Your task to perform on an android device: Is it going to rain today? Image 0: 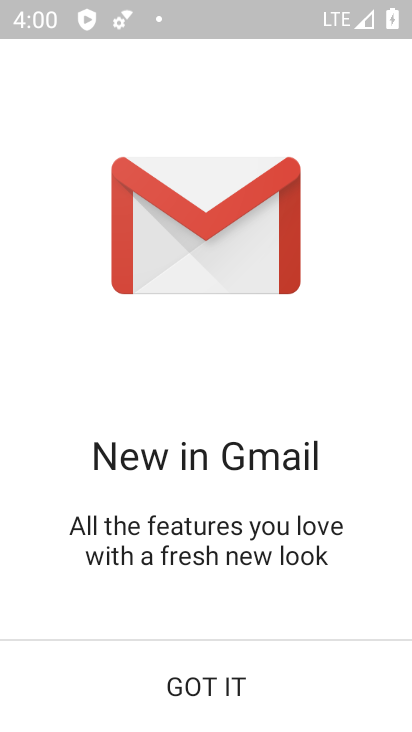
Step 0: press home button
Your task to perform on an android device: Is it going to rain today? Image 1: 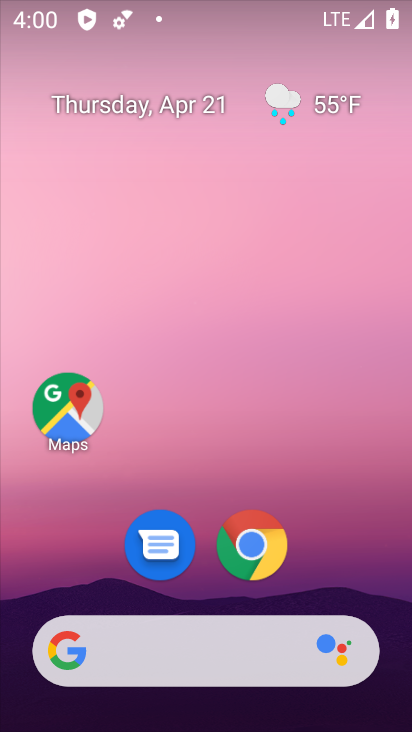
Step 1: drag from (233, 640) to (227, 144)
Your task to perform on an android device: Is it going to rain today? Image 2: 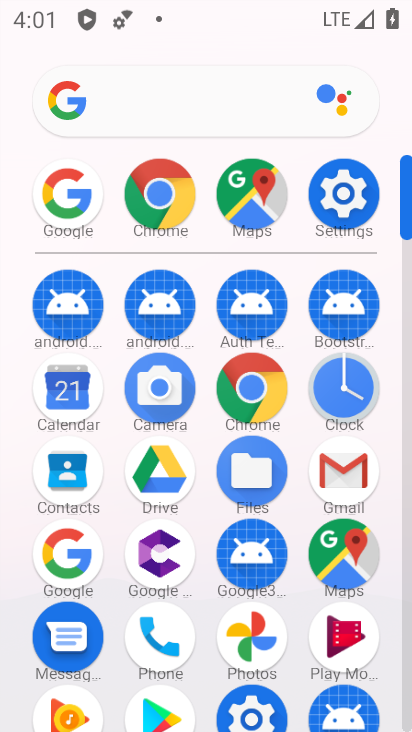
Step 2: click (69, 553)
Your task to perform on an android device: Is it going to rain today? Image 3: 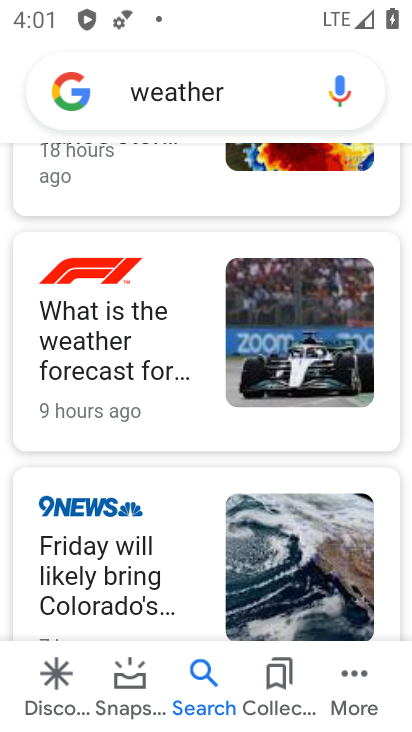
Step 3: click (243, 101)
Your task to perform on an android device: Is it going to rain today? Image 4: 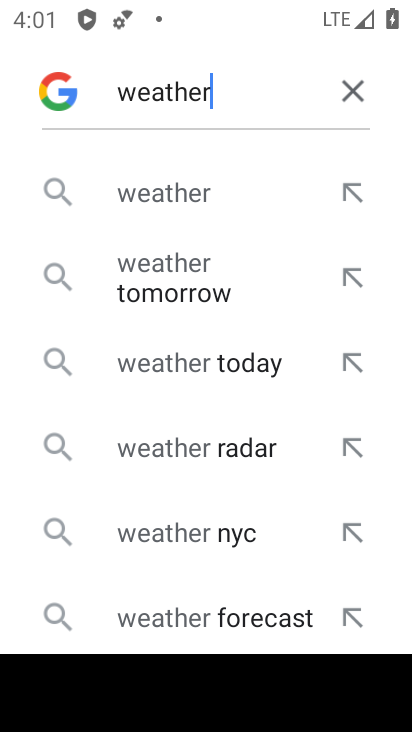
Step 4: click (190, 186)
Your task to perform on an android device: Is it going to rain today? Image 5: 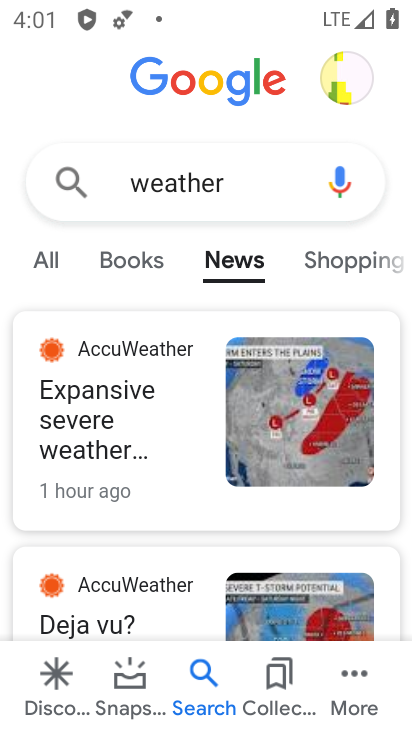
Step 5: click (36, 266)
Your task to perform on an android device: Is it going to rain today? Image 6: 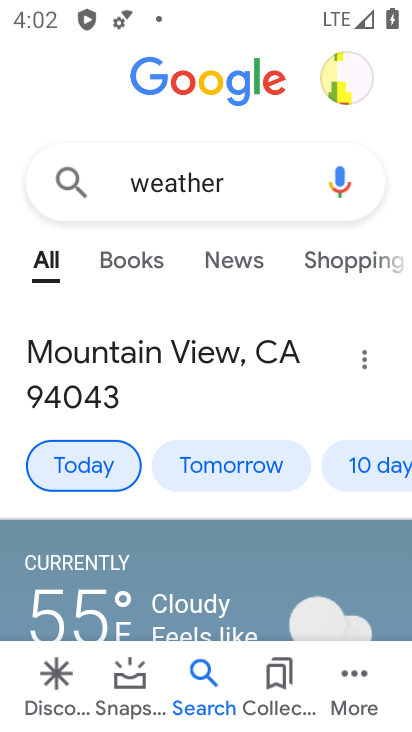
Step 6: task complete